Your task to perform on an android device: toggle location history Image 0: 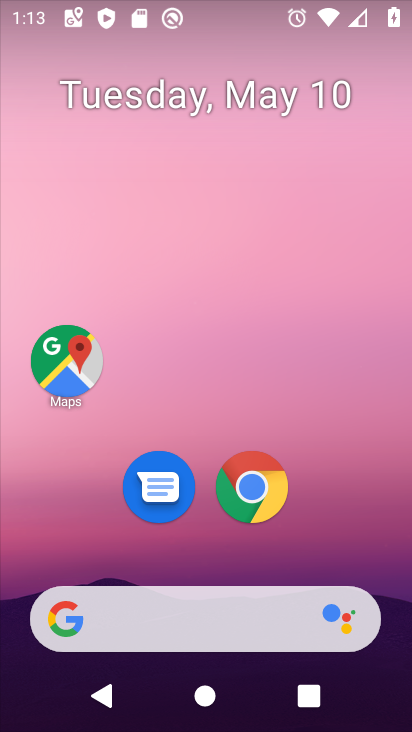
Step 0: drag from (344, 571) to (320, 231)
Your task to perform on an android device: toggle location history Image 1: 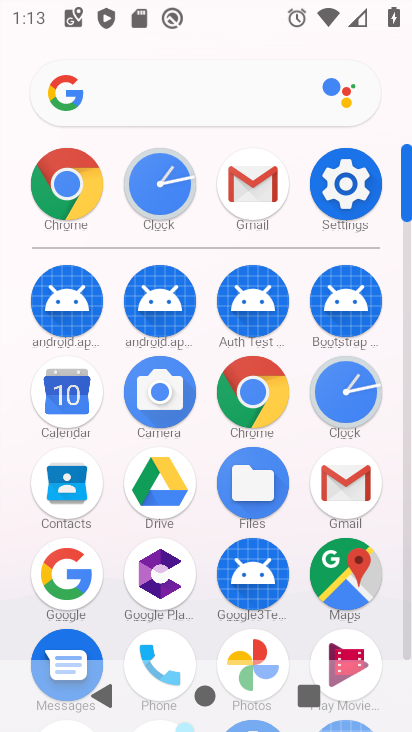
Step 1: click (330, 220)
Your task to perform on an android device: toggle location history Image 2: 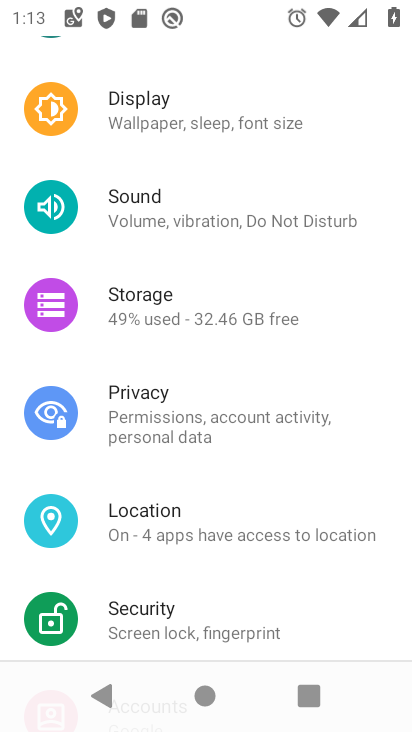
Step 2: click (210, 514)
Your task to perform on an android device: toggle location history Image 3: 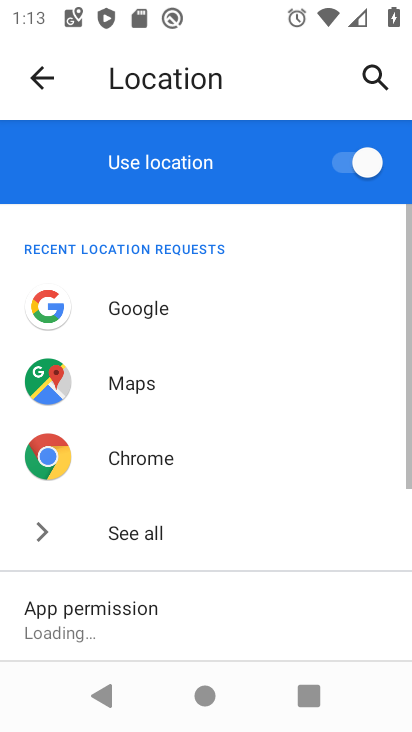
Step 3: drag from (185, 564) to (174, 366)
Your task to perform on an android device: toggle location history Image 4: 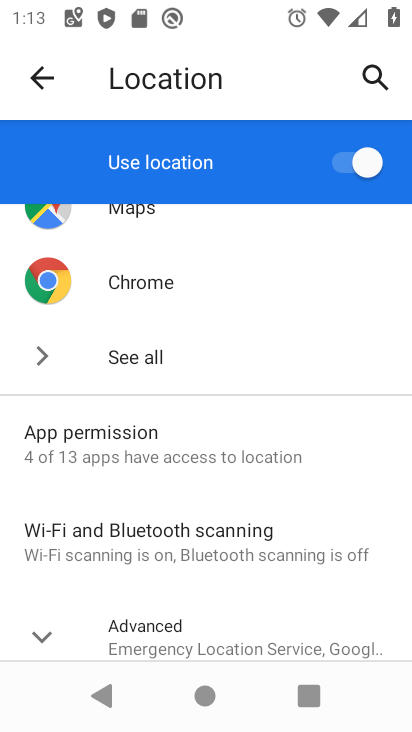
Step 4: drag from (164, 479) to (159, 214)
Your task to perform on an android device: toggle location history Image 5: 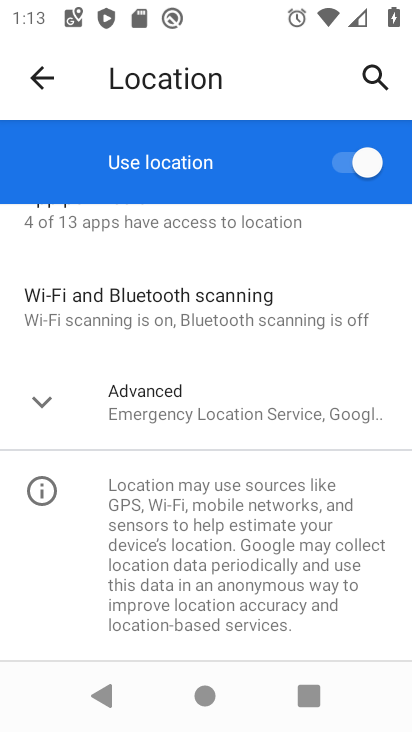
Step 5: click (77, 386)
Your task to perform on an android device: toggle location history Image 6: 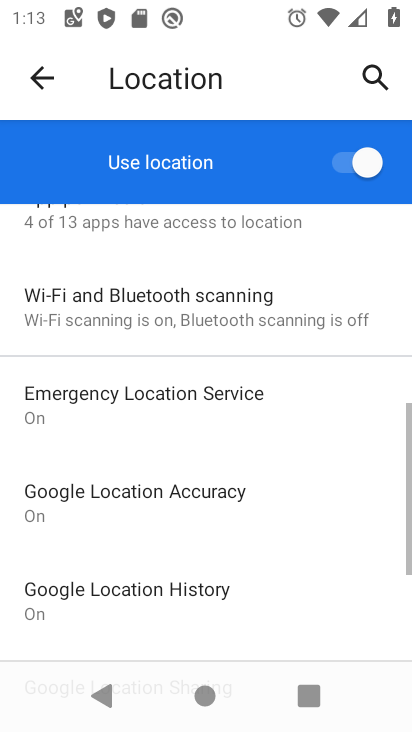
Step 6: drag from (77, 392) to (86, 283)
Your task to perform on an android device: toggle location history Image 7: 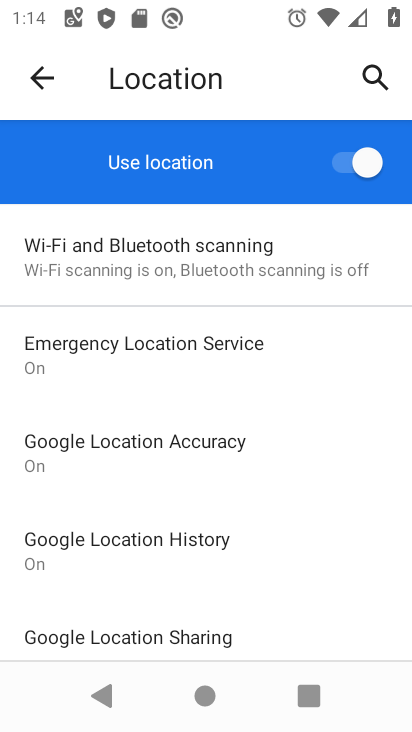
Step 7: drag from (45, 507) to (67, 393)
Your task to perform on an android device: toggle location history Image 8: 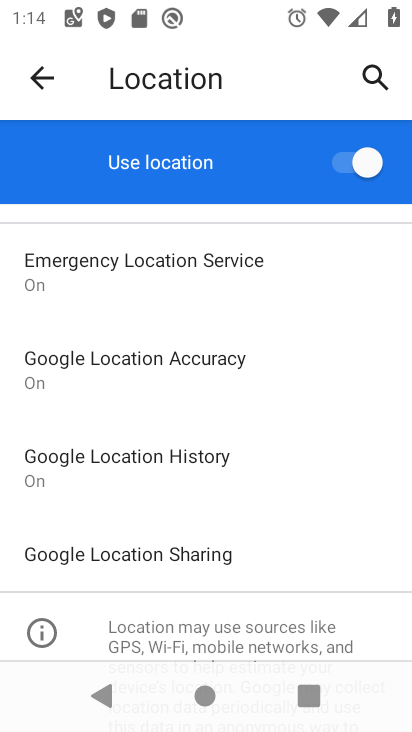
Step 8: click (21, 457)
Your task to perform on an android device: toggle location history Image 9: 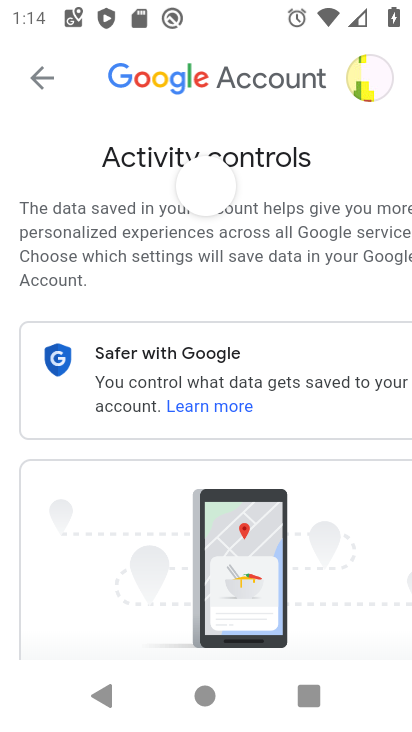
Step 9: task complete